Your task to perform on an android device: View the shopping cart on ebay.com. Image 0: 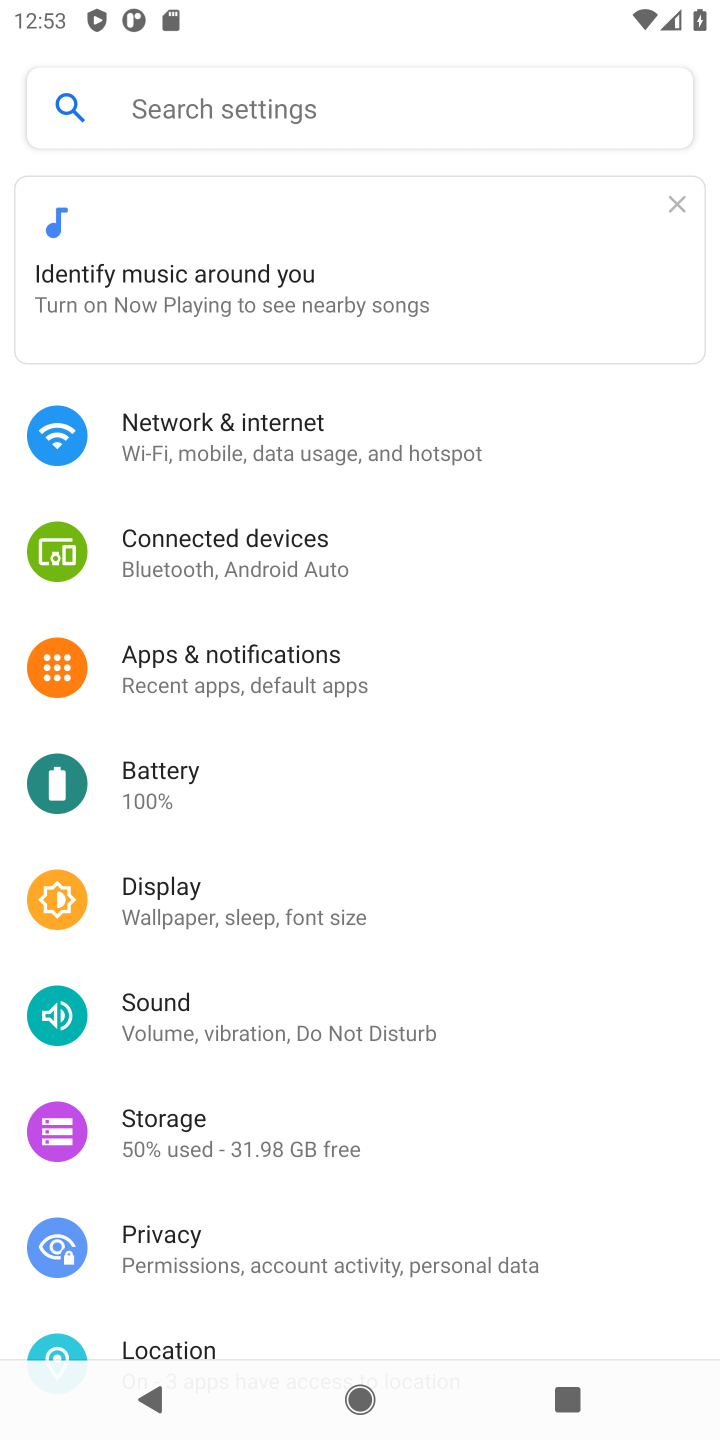
Step 0: press home button
Your task to perform on an android device: View the shopping cart on ebay.com. Image 1: 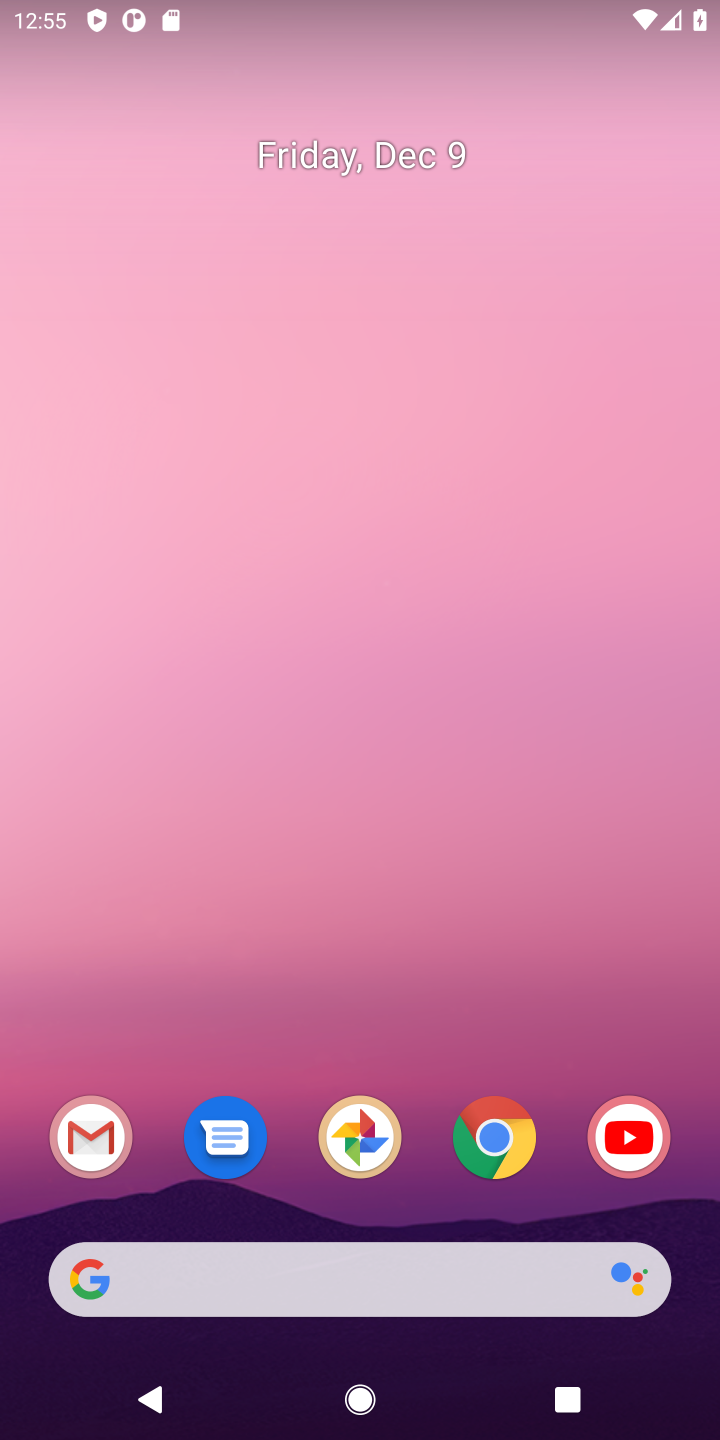
Step 1: click (493, 1134)
Your task to perform on an android device: View the shopping cart on ebay.com. Image 2: 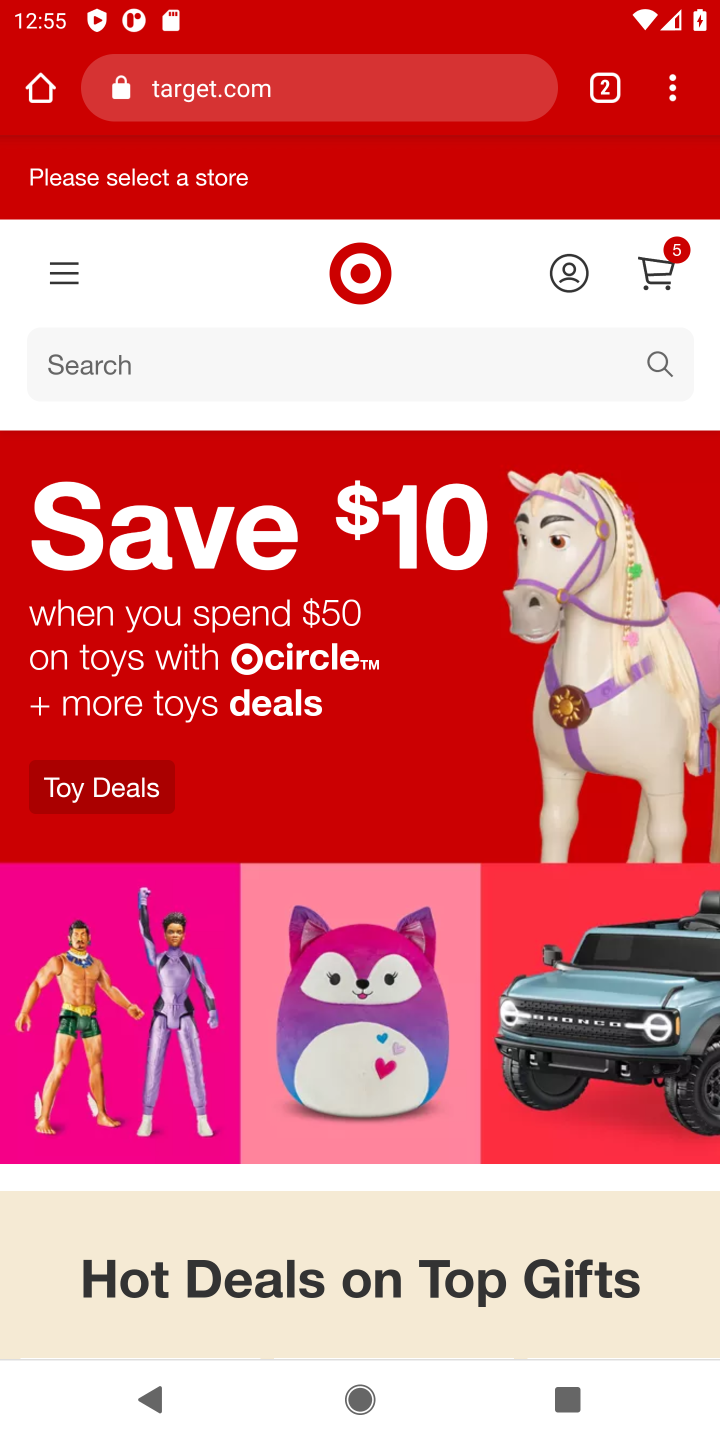
Step 2: click (376, 102)
Your task to perform on an android device: View the shopping cart on ebay.com. Image 3: 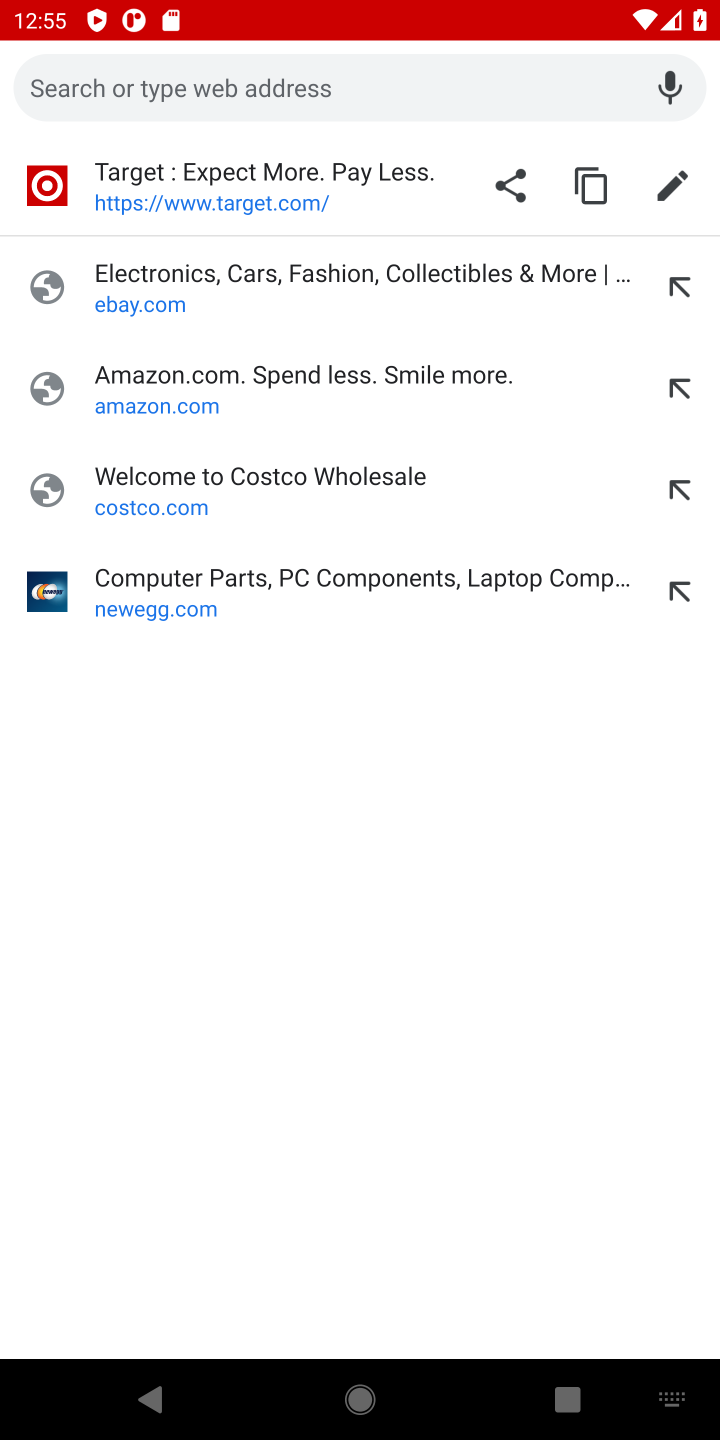
Step 3: click (244, 291)
Your task to perform on an android device: View the shopping cart on ebay.com. Image 4: 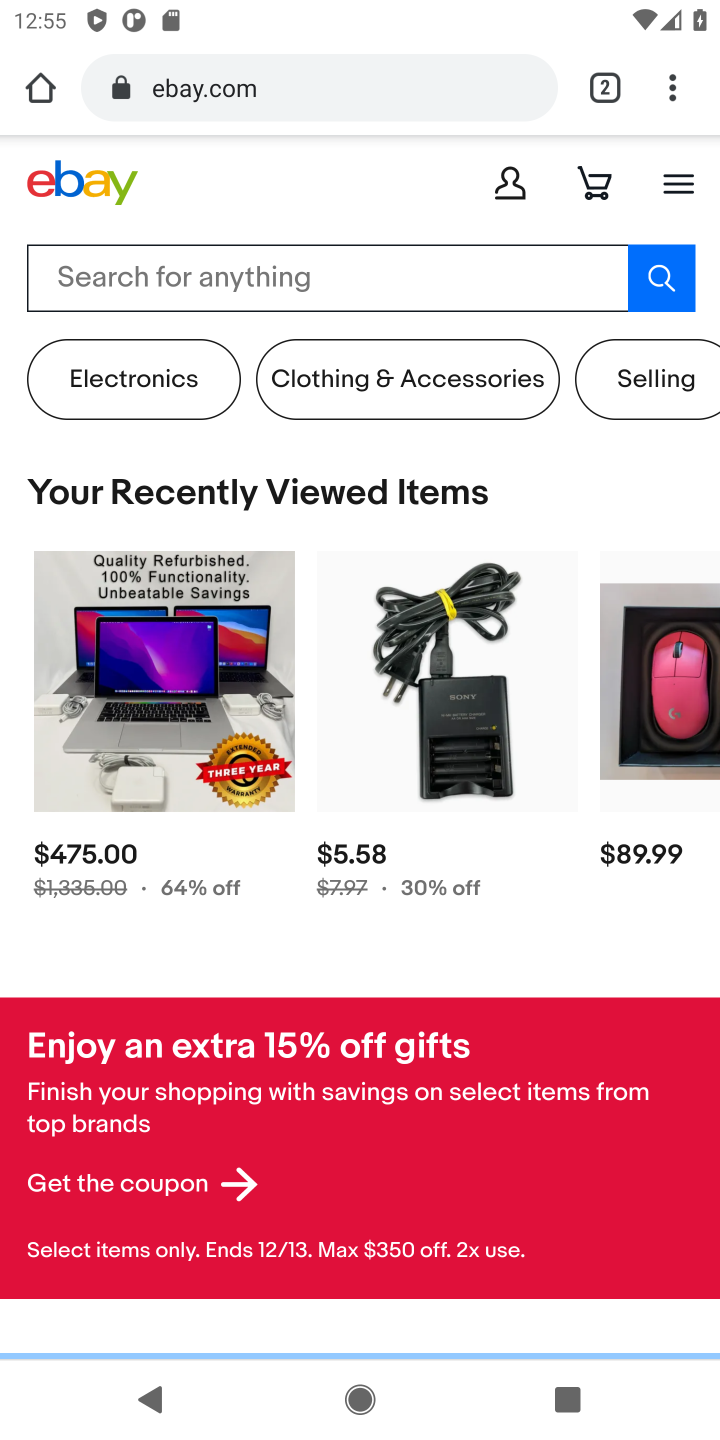
Step 4: click (444, 288)
Your task to perform on an android device: View the shopping cart on ebay.com. Image 5: 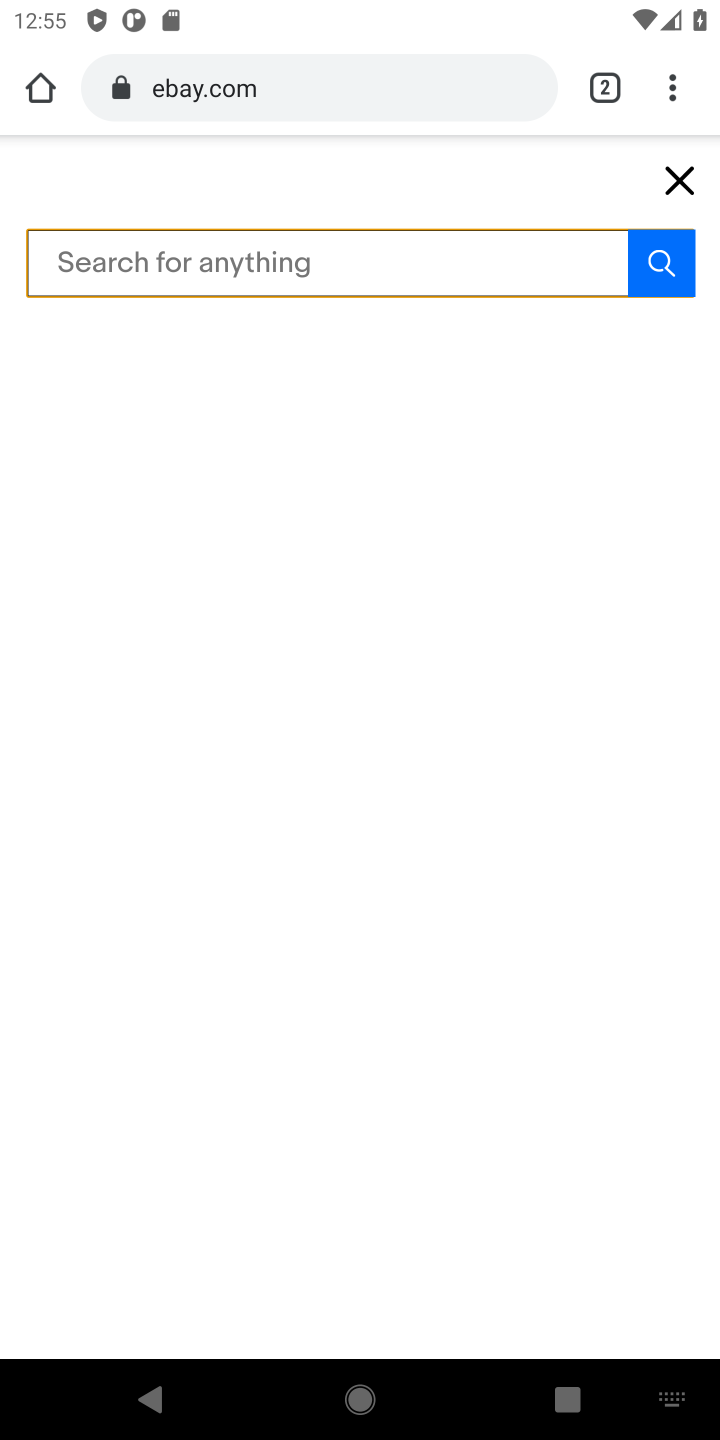
Step 5: click (681, 185)
Your task to perform on an android device: View the shopping cart on ebay.com. Image 6: 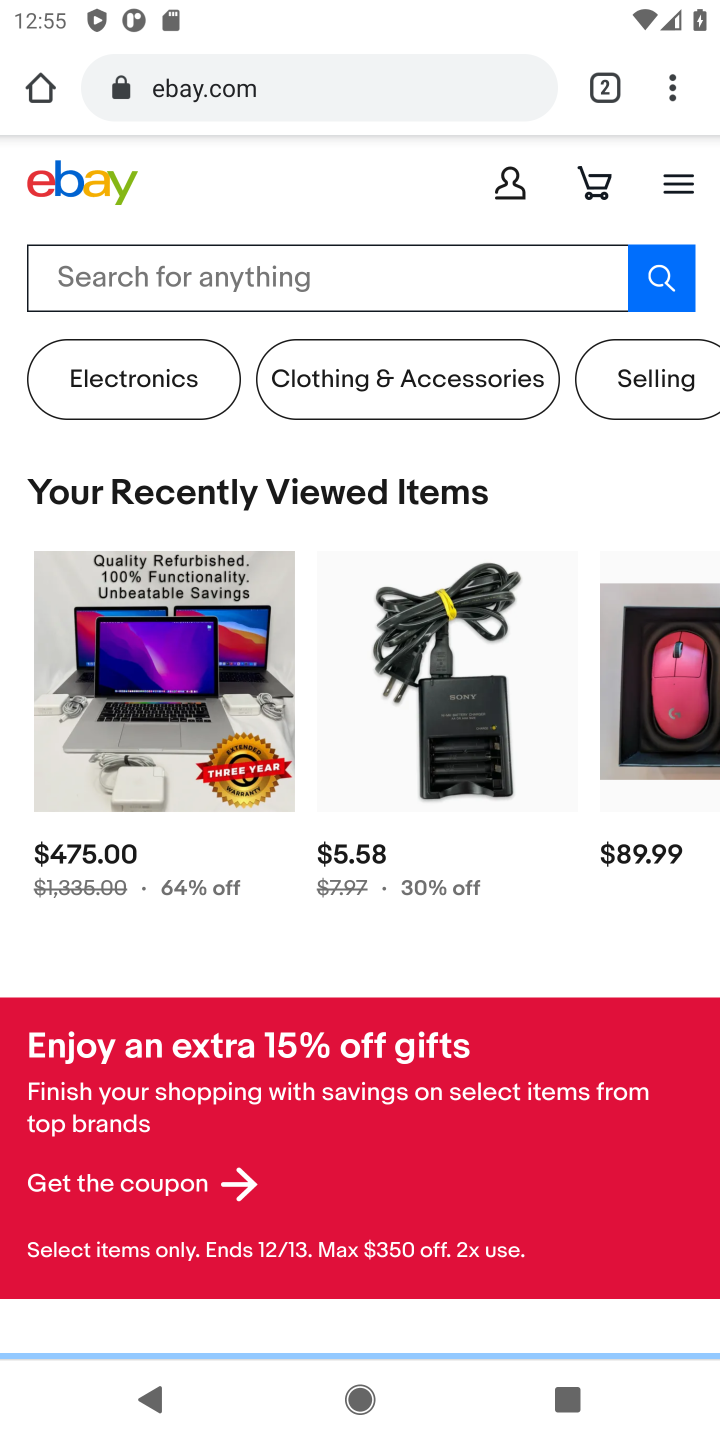
Step 6: click (607, 181)
Your task to perform on an android device: View the shopping cart on ebay.com. Image 7: 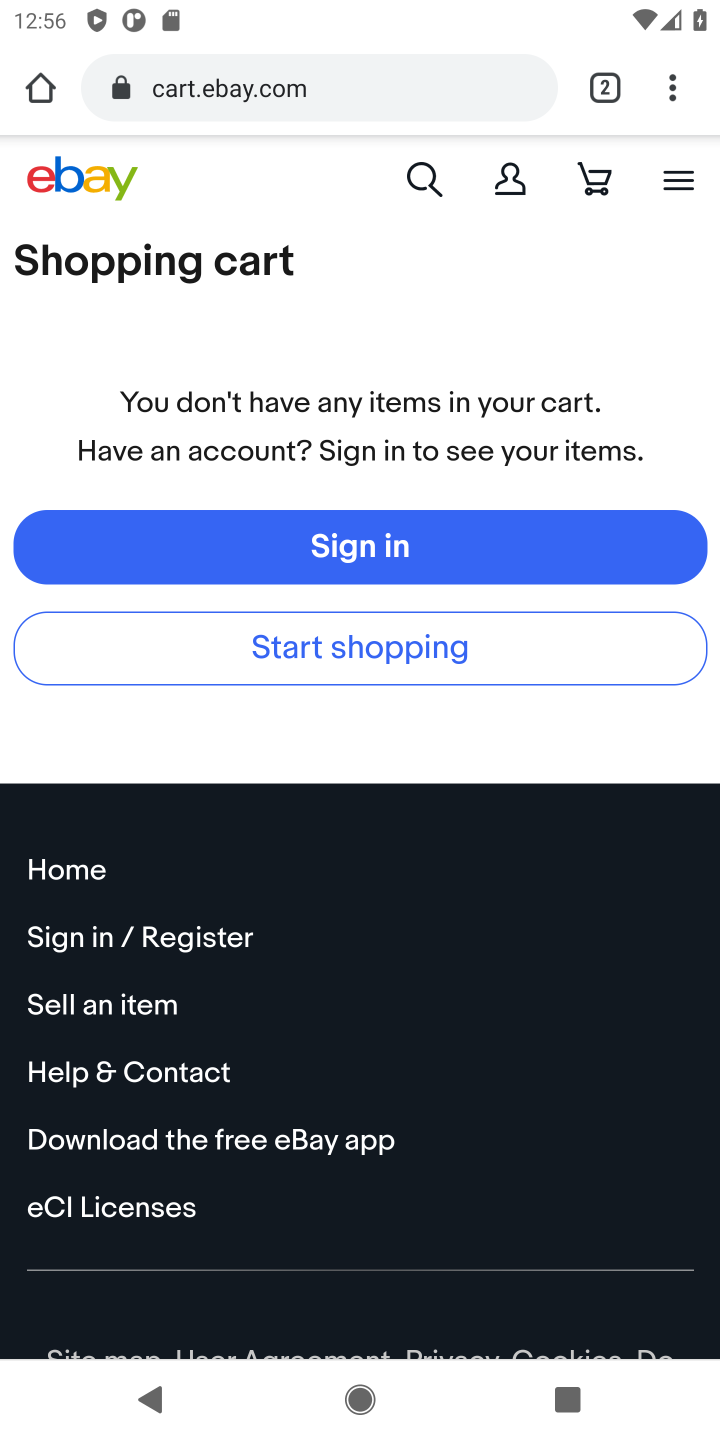
Step 7: task complete